Your task to perform on an android device: Open wifi settings Image 0: 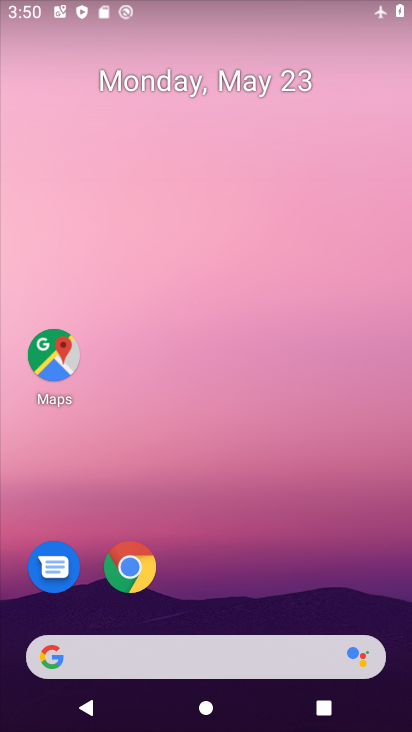
Step 0: drag from (398, 659) to (235, 3)
Your task to perform on an android device: Open wifi settings Image 1: 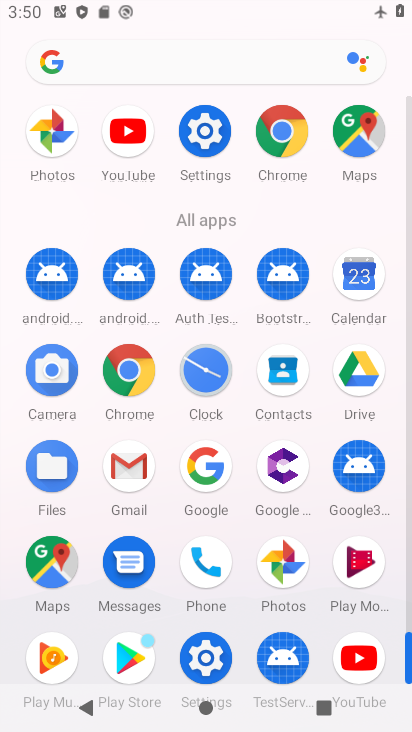
Step 1: click (204, 656)
Your task to perform on an android device: Open wifi settings Image 2: 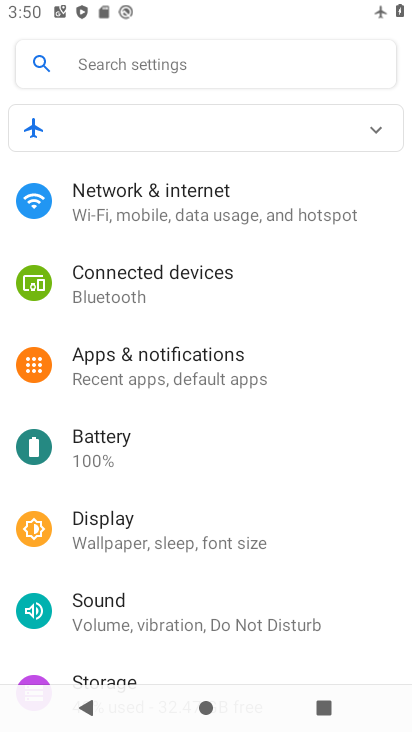
Step 2: click (147, 191)
Your task to perform on an android device: Open wifi settings Image 3: 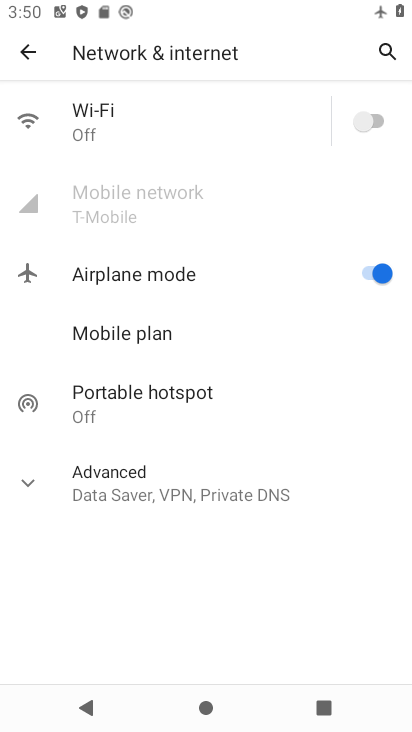
Step 3: click (97, 112)
Your task to perform on an android device: Open wifi settings Image 4: 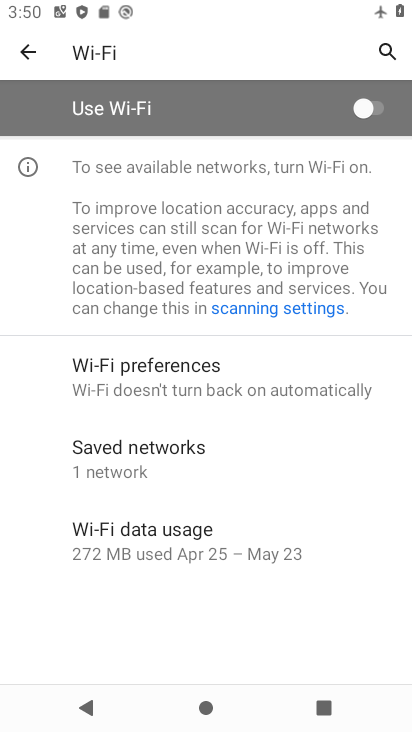
Step 4: task complete